Your task to perform on an android device: Is it going to rain today? Image 0: 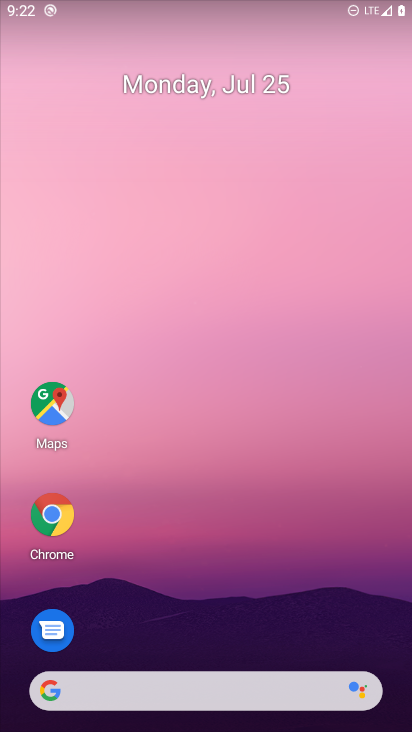
Step 0: click (92, 677)
Your task to perform on an android device: Is it going to rain today? Image 1: 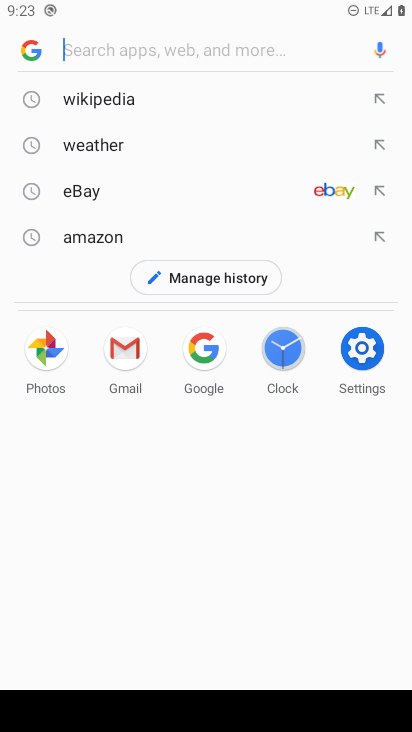
Step 1: type "Is it going to rain today?"
Your task to perform on an android device: Is it going to rain today? Image 2: 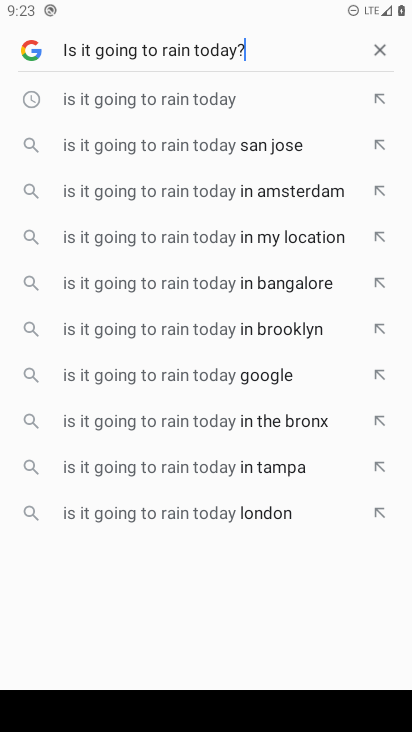
Step 2: type ""
Your task to perform on an android device: Is it going to rain today? Image 3: 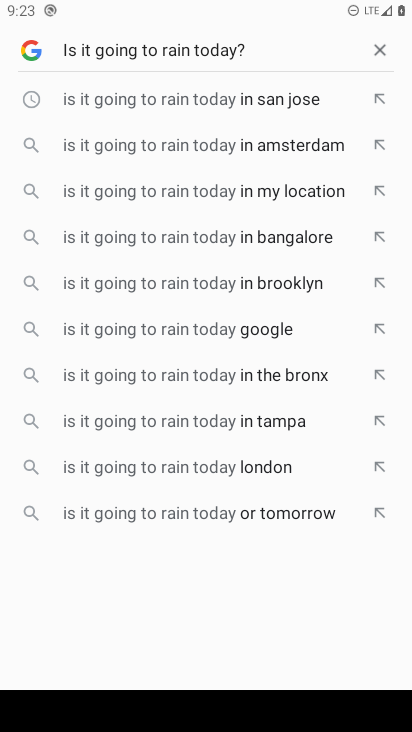
Step 3: task complete